Your task to perform on an android device: Open Maps and search for coffee Image 0: 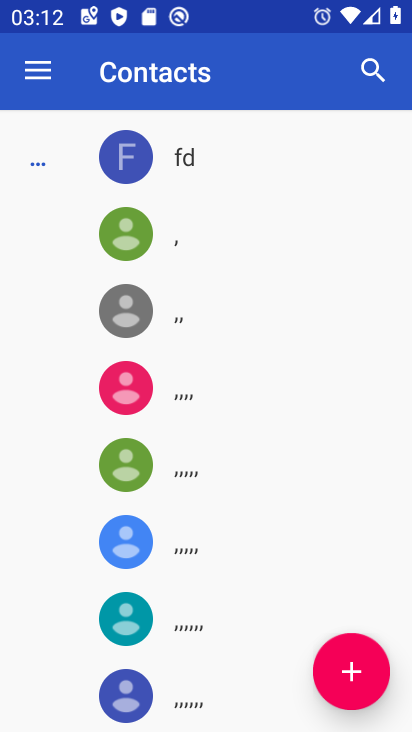
Step 0: press home button
Your task to perform on an android device: Open Maps and search for coffee Image 1: 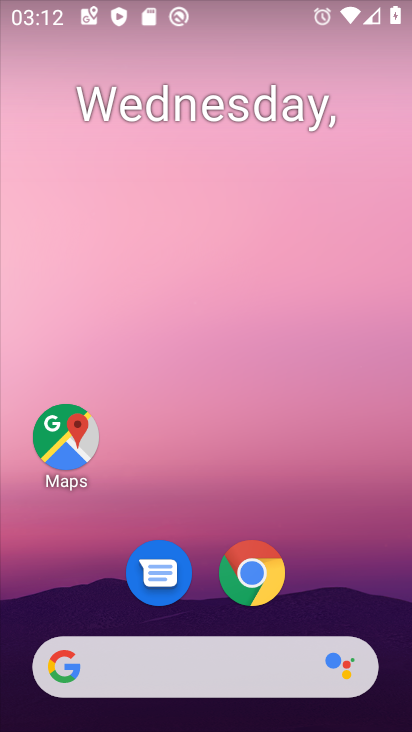
Step 1: drag from (212, 717) to (211, 52)
Your task to perform on an android device: Open Maps and search for coffee Image 2: 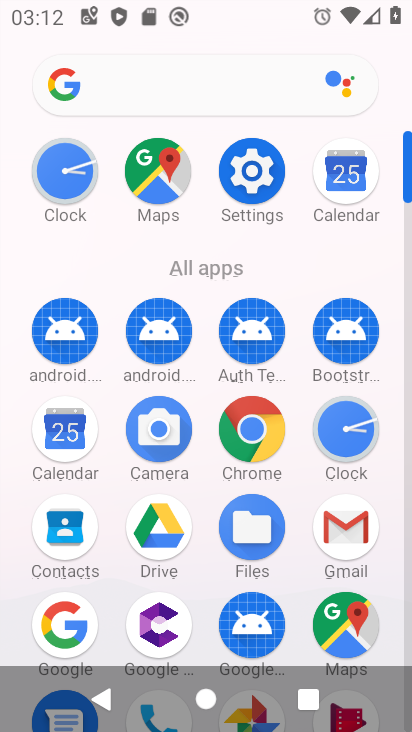
Step 2: click (352, 625)
Your task to perform on an android device: Open Maps and search for coffee Image 3: 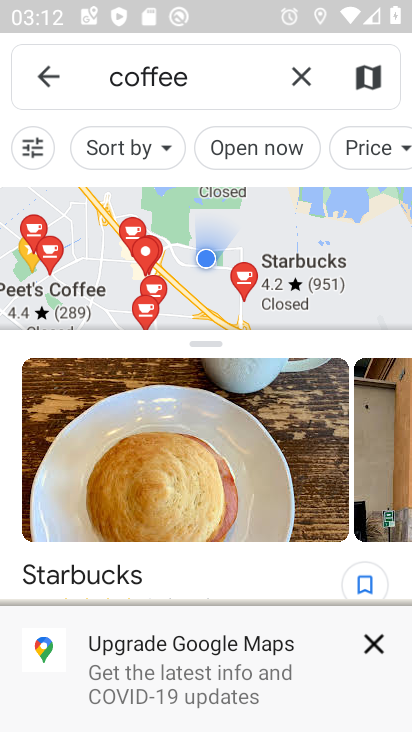
Step 3: task complete